Your task to perform on an android device: delete a single message in the gmail app Image 0: 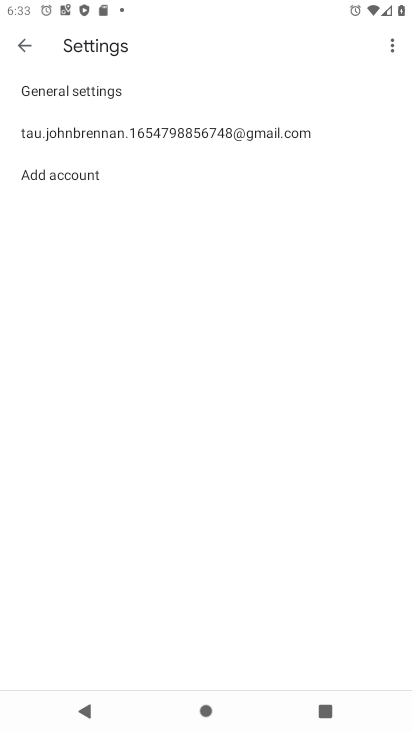
Step 0: press home button
Your task to perform on an android device: delete a single message in the gmail app Image 1: 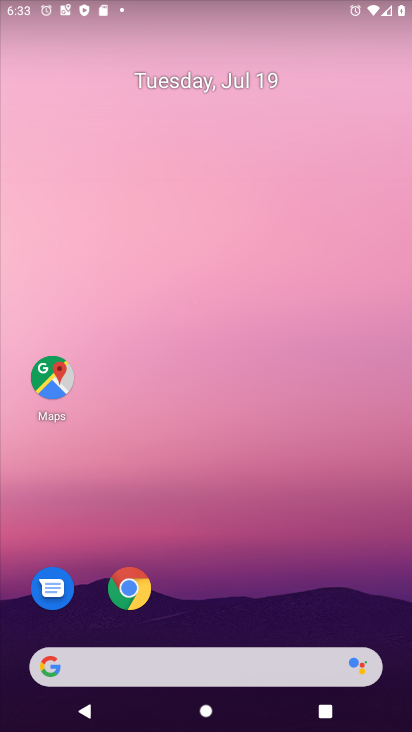
Step 1: click (198, 586)
Your task to perform on an android device: delete a single message in the gmail app Image 2: 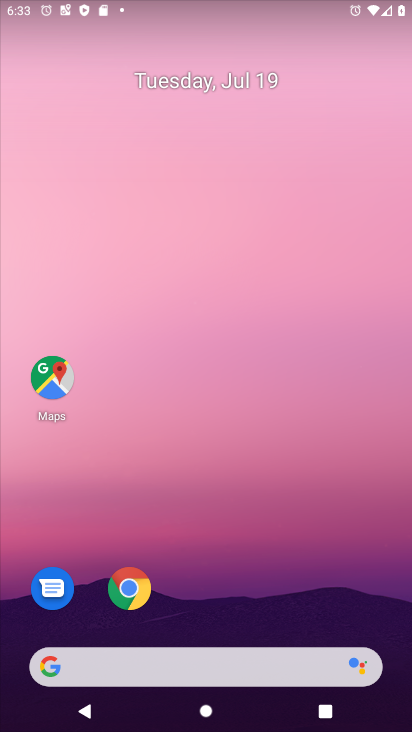
Step 2: drag from (198, 586) to (154, 170)
Your task to perform on an android device: delete a single message in the gmail app Image 3: 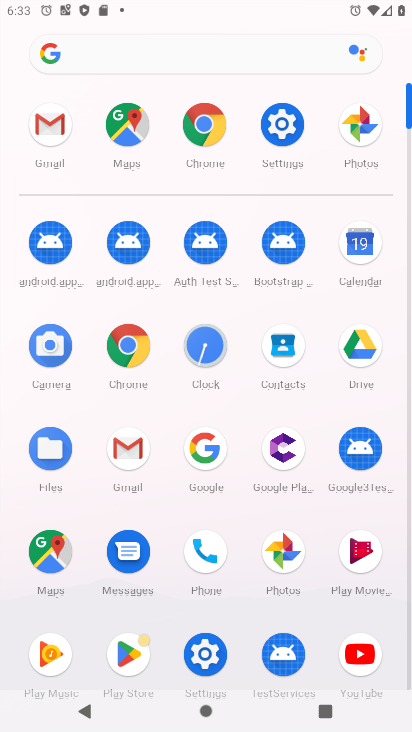
Step 3: click (59, 123)
Your task to perform on an android device: delete a single message in the gmail app Image 4: 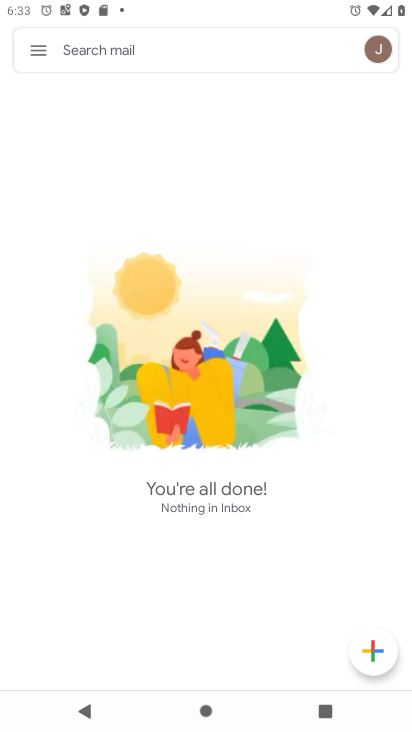
Step 4: task complete